Your task to perform on an android device: Open calendar and show me the second week of next month Image 0: 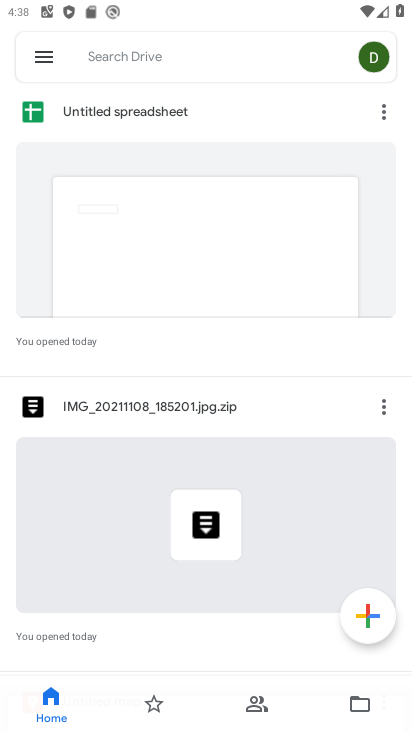
Step 0: press home button
Your task to perform on an android device: Open calendar and show me the second week of next month Image 1: 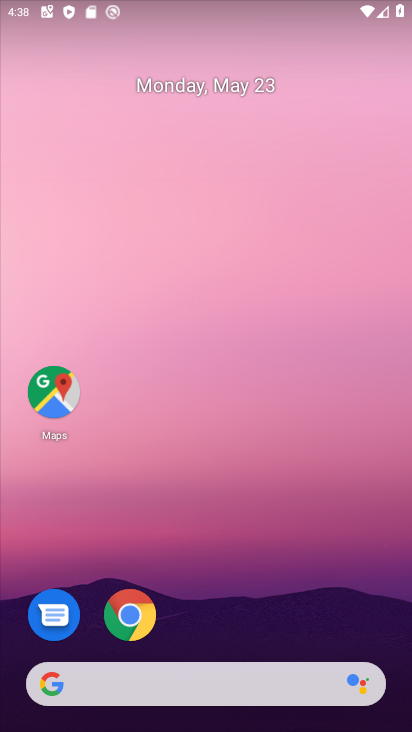
Step 1: drag from (179, 610) to (273, 64)
Your task to perform on an android device: Open calendar and show me the second week of next month Image 2: 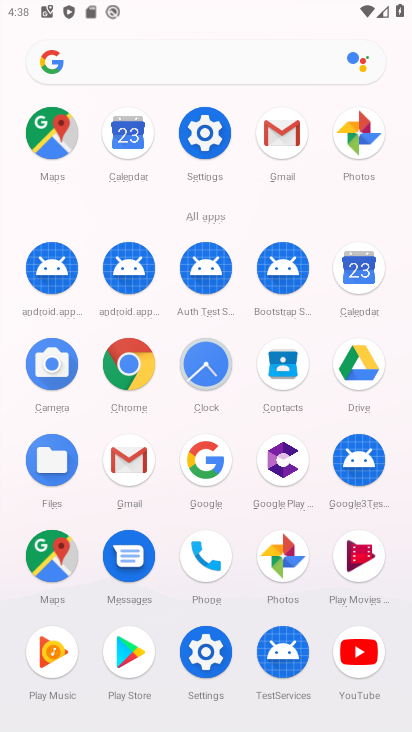
Step 2: click (124, 131)
Your task to perform on an android device: Open calendar and show me the second week of next month Image 3: 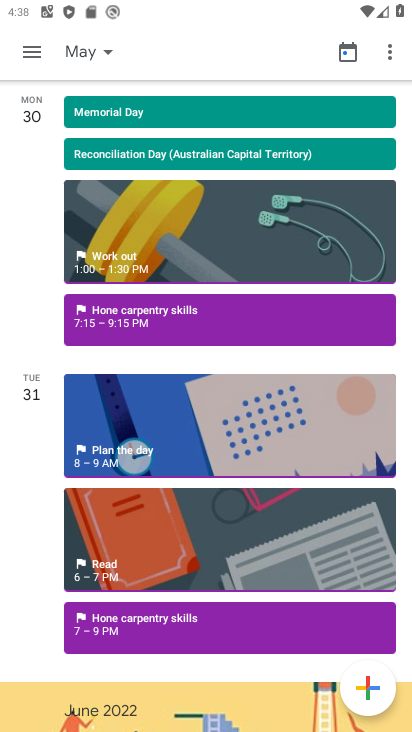
Step 3: click (98, 50)
Your task to perform on an android device: Open calendar and show me the second week of next month Image 4: 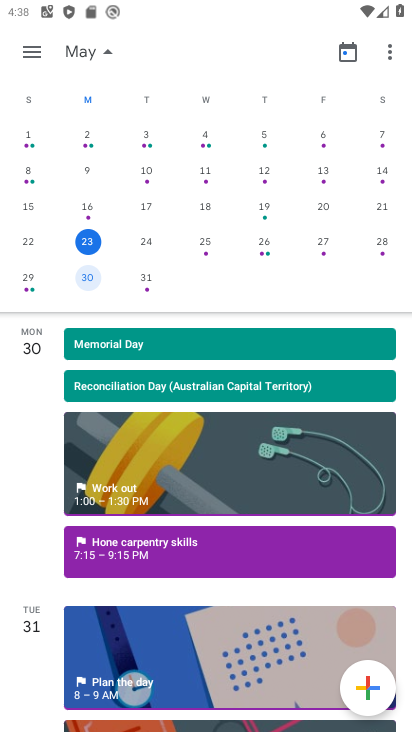
Step 4: drag from (354, 201) to (21, 202)
Your task to perform on an android device: Open calendar and show me the second week of next month Image 5: 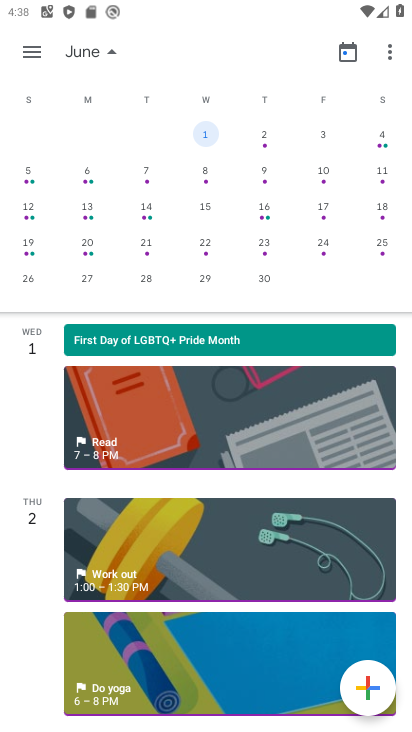
Step 5: click (90, 168)
Your task to perform on an android device: Open calendar and show me the second week of next month Image 6: 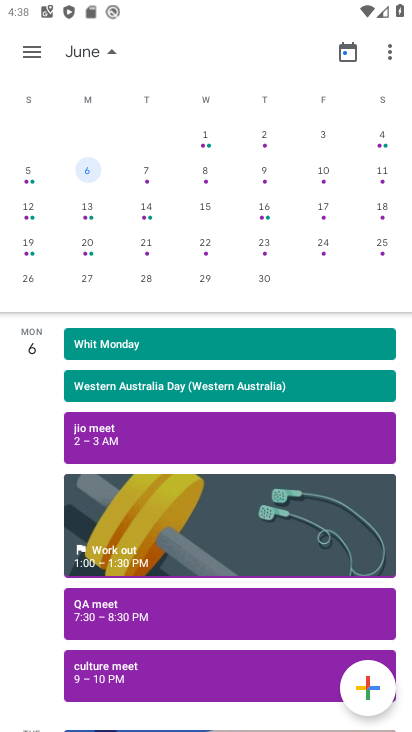
Step 6: task complete